Your task to perform on an android device: Open battery settings Image 0: 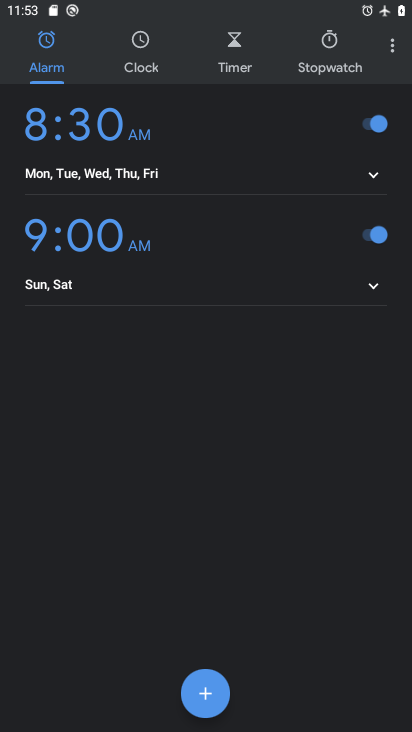
Step 0: press back button
Your task to perform on an android device: Open battery settings Image 1: 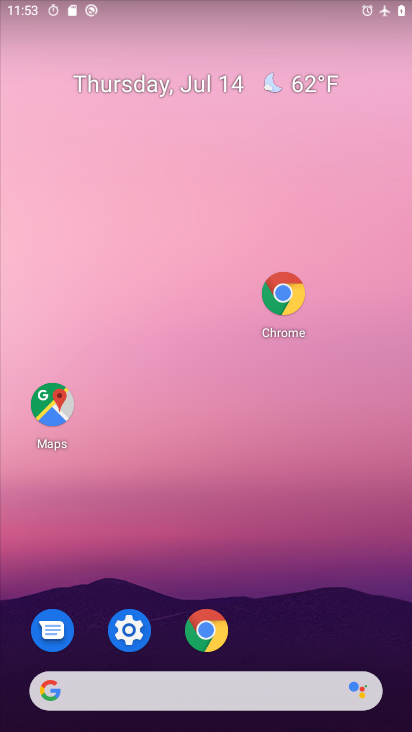
Step 1: drag from (251, 627) to (172, 53)
Your task to perform on an android device: Open battery settings Image 2: 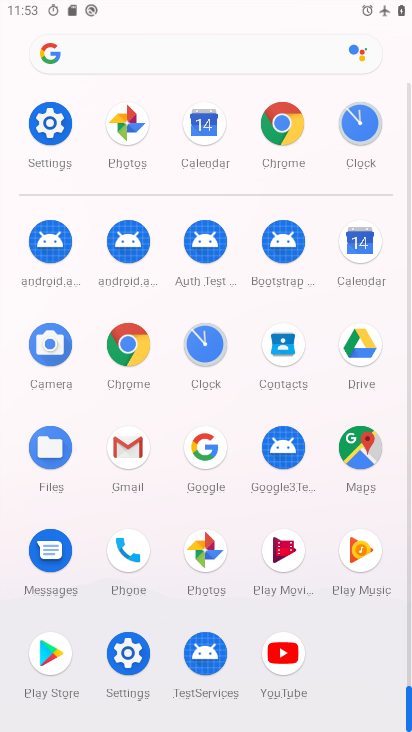
Step 2: click (46, 126)
Your task to perform on an android device: Open battery settings Image 3: 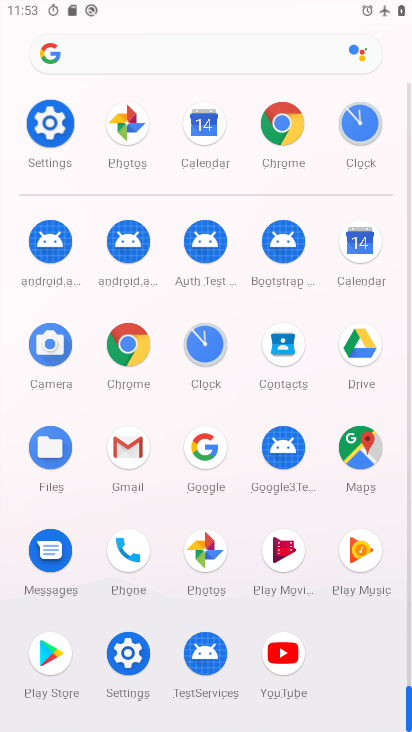
Step 3: click (49, 127)
Your task to perform on an android device: Open battery settings Image 4: 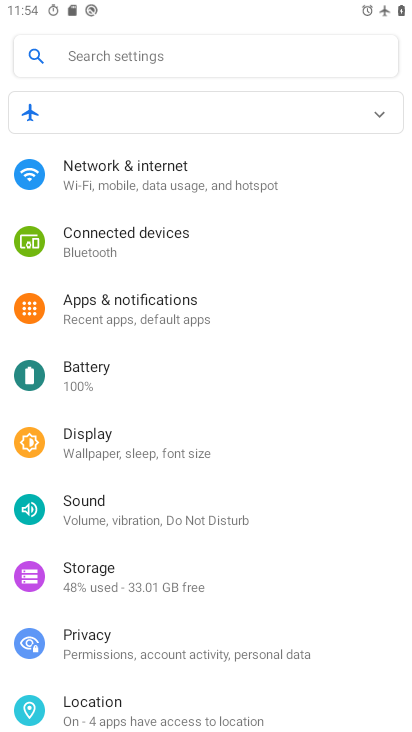
Step 4: click (86, 377)
Your task to perform on an android device: Open battery settings Image 5: 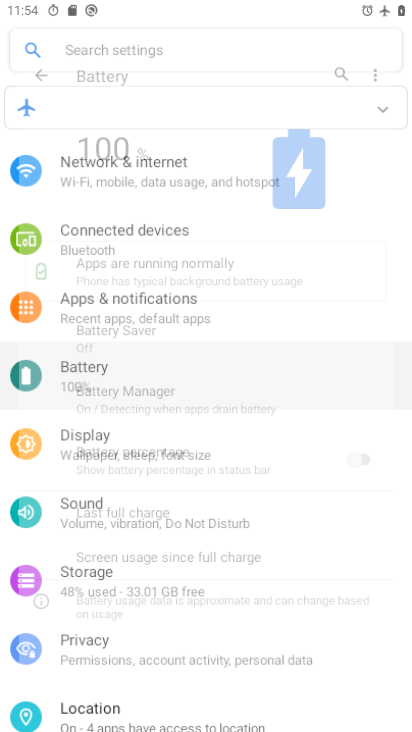
Step 5: click (86, 375)
Your task to perform on an android device: Open battery settings Image 6: 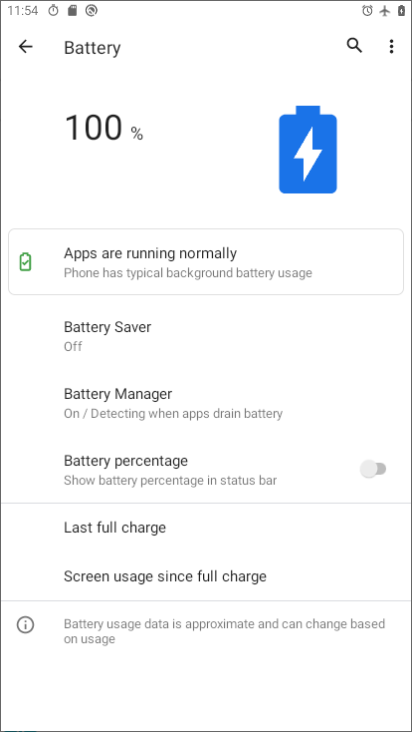
Step 6: click (87, 374)
Your task to perform on an android device: Open battery settings Image 7: 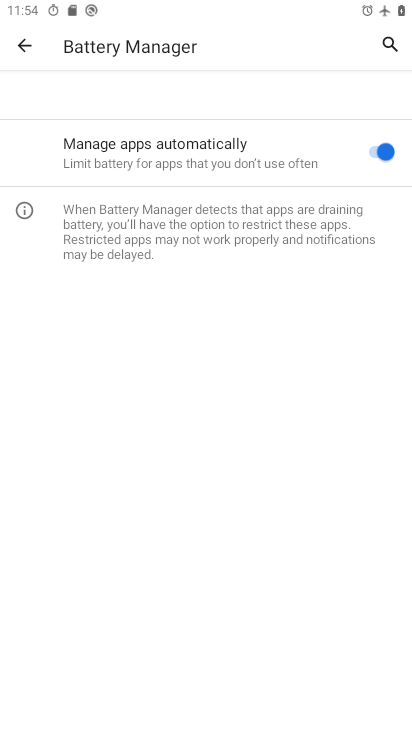
Step 7: task complete